Your task to perform on an android device: Turn off the flashlight Image 0: 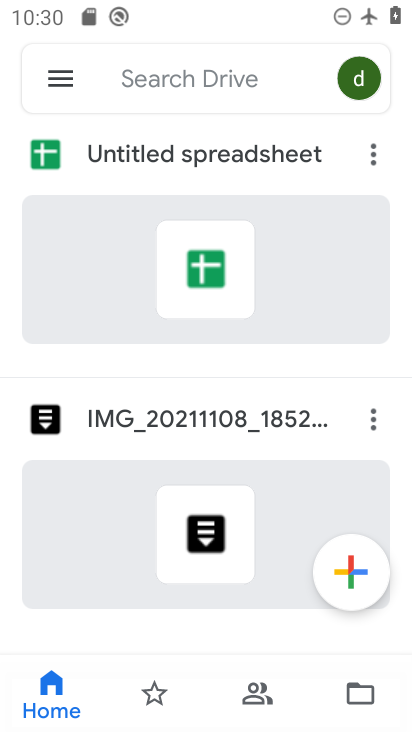
Step 0: press home button
Your task to perform on an android device: Turn off the flashlight Image 1: 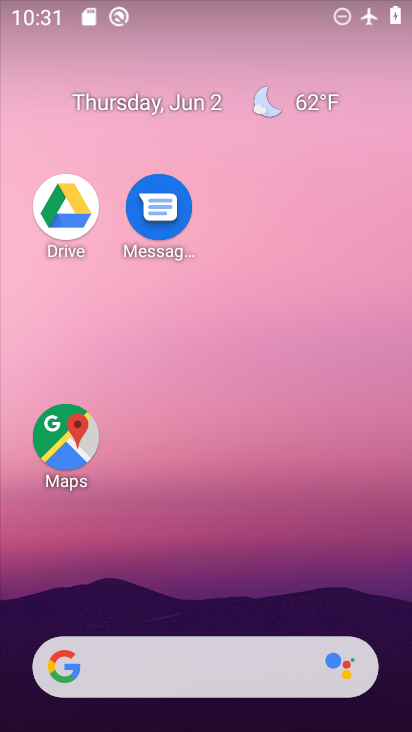
Step 1: drag from (201, 618) to (183, 0)
Your task to perform on an android device: Turn off the flashlight Image 2: 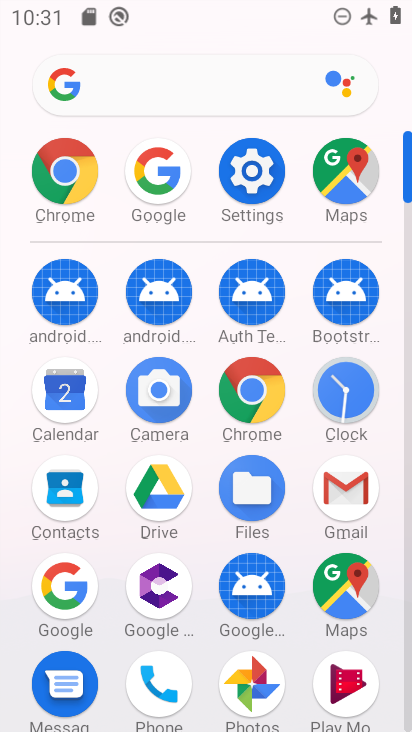
Step 2: click (247, 160)
Your task to perform on an android device: Turn off the flashlight Image 3: 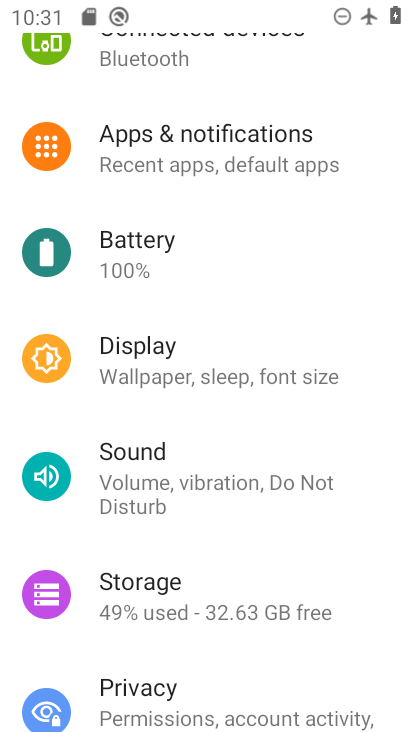
Step 3: task complete